Your task to perform on an android device: Open Wikipedia Image 0: 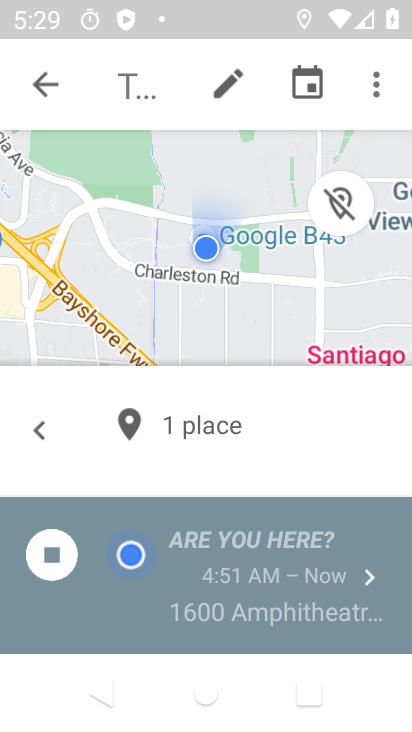
Step 0: press home button
Your task to perform on an android device: Open Wikipedia Image 1: 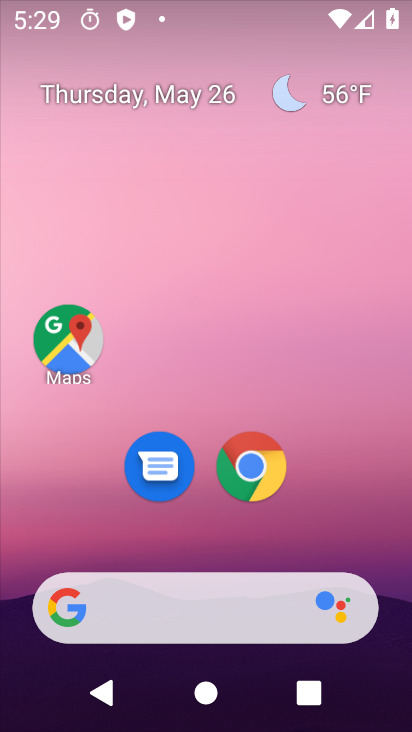
Step 1: click (250, 462)
Your task to perform on an android device: Open Wikipedia Image 2: 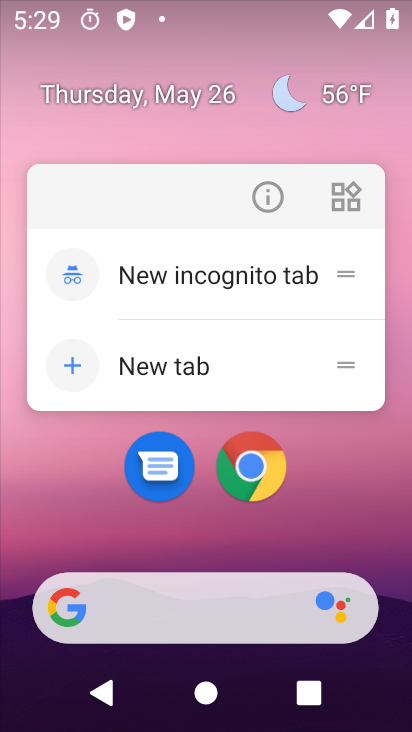
Step 2: click (252, 455)
Your task to perform on an android device: Open Wikipedia Image 3: 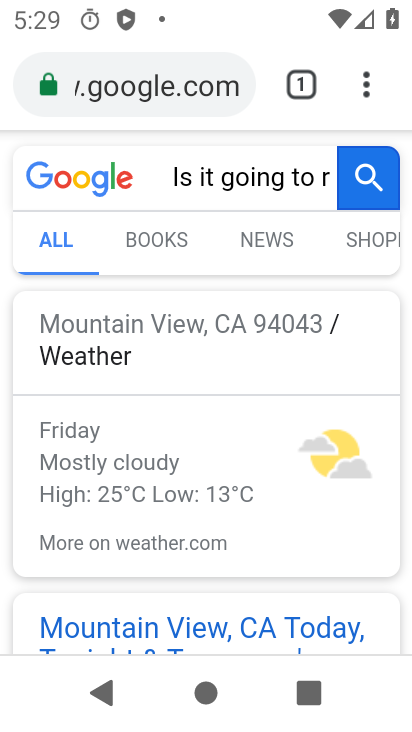
Step 3: drag from (368, 85) to (181, 179)
Your task to perform on an android device: Open Wikipedia Image 4: 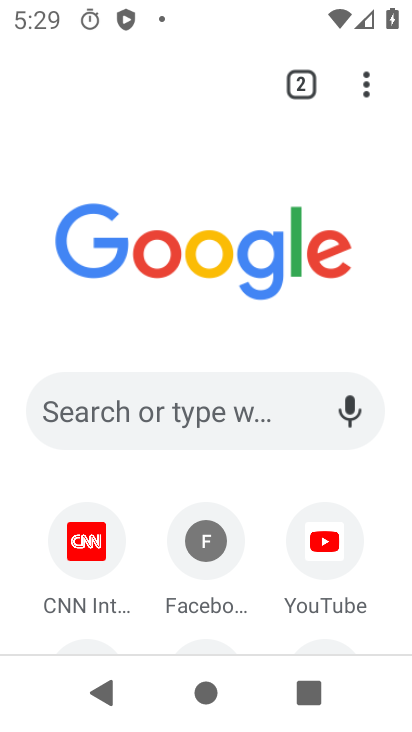
Step 4: drag from (293, 598) to (285, 247)
Your task to perform on an android device: Open Wikipedia Image 5: 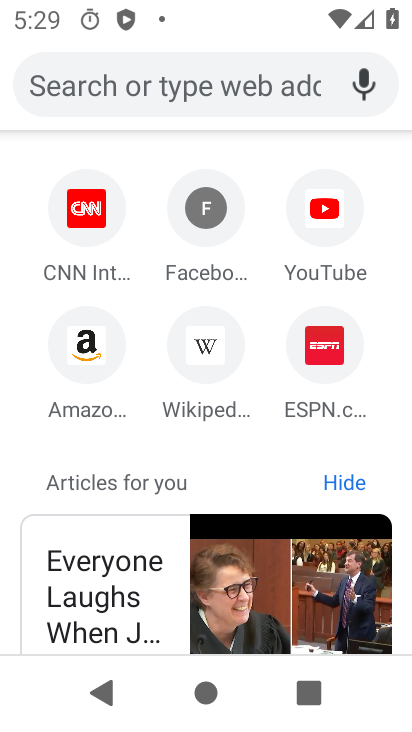
Step 5: click (205, 334)
Your task to perform on an android device: Open Wikipedia Image 6: 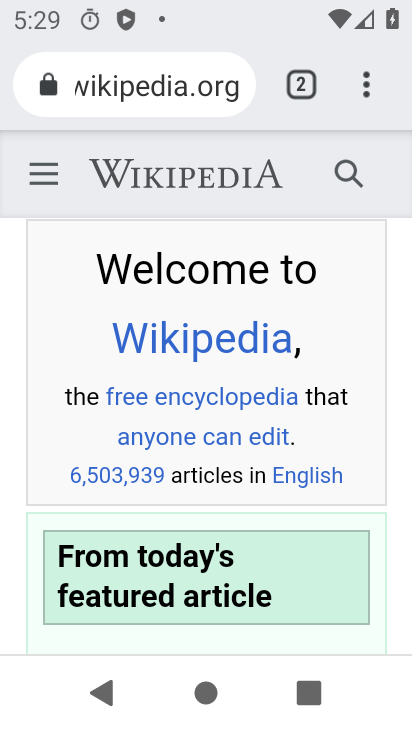
Step 6: task complete